Your task to perform on an android device: turn off picture-in-picture Image 0: 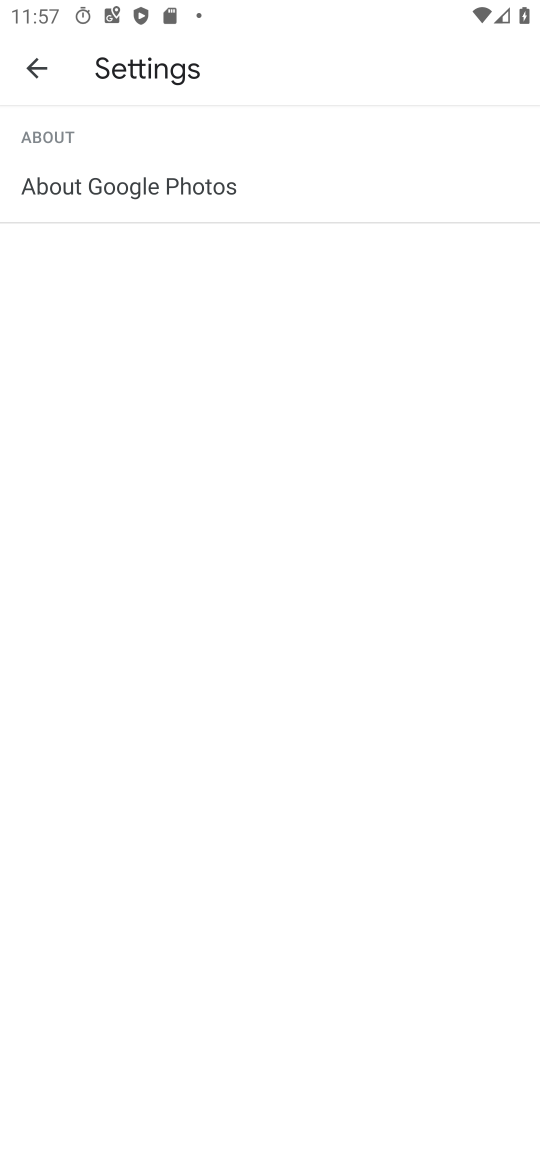
Step 0: click (21, 72)
Your task to perform on an android device: turn off picture-in-picture Image 1: 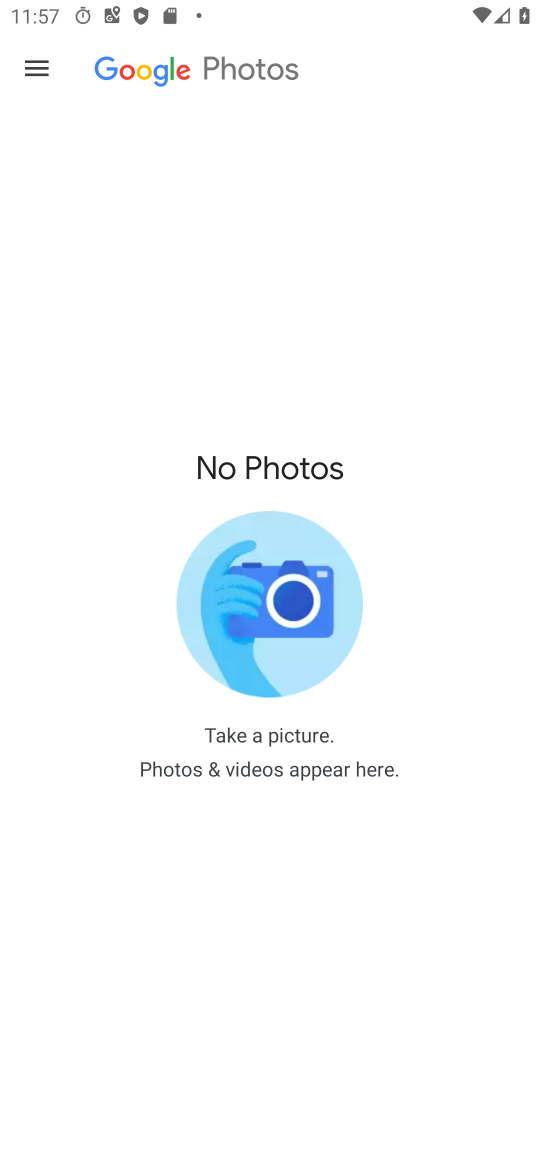
Step 1: press back button
Your task to perform on an android device: turn off picture-in-picture Image 2: 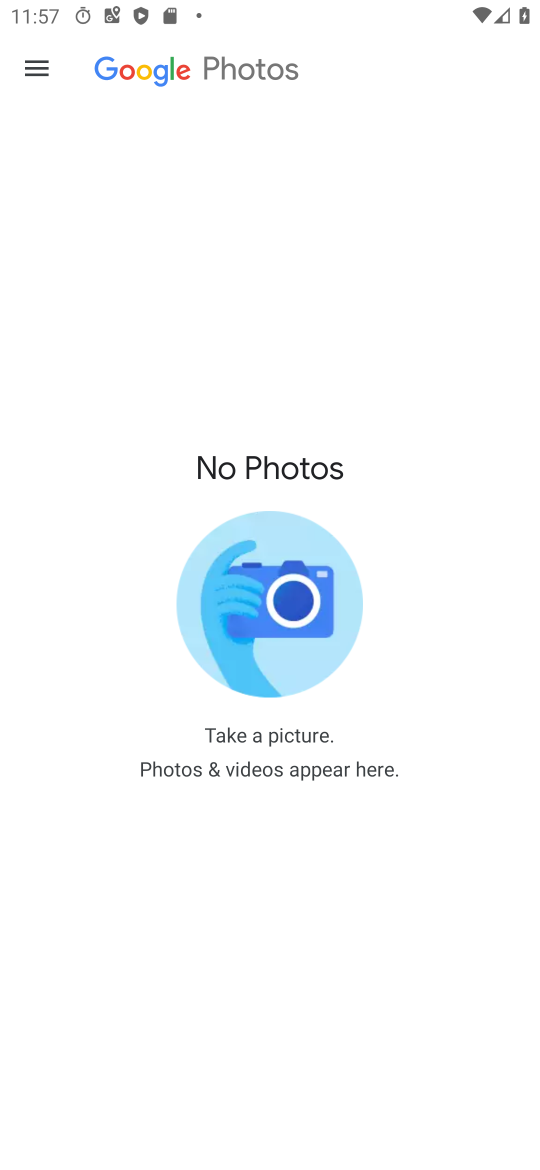
Step 2: press back button
Your task to perform on an android device: turn off picture-in-picture Image 3: 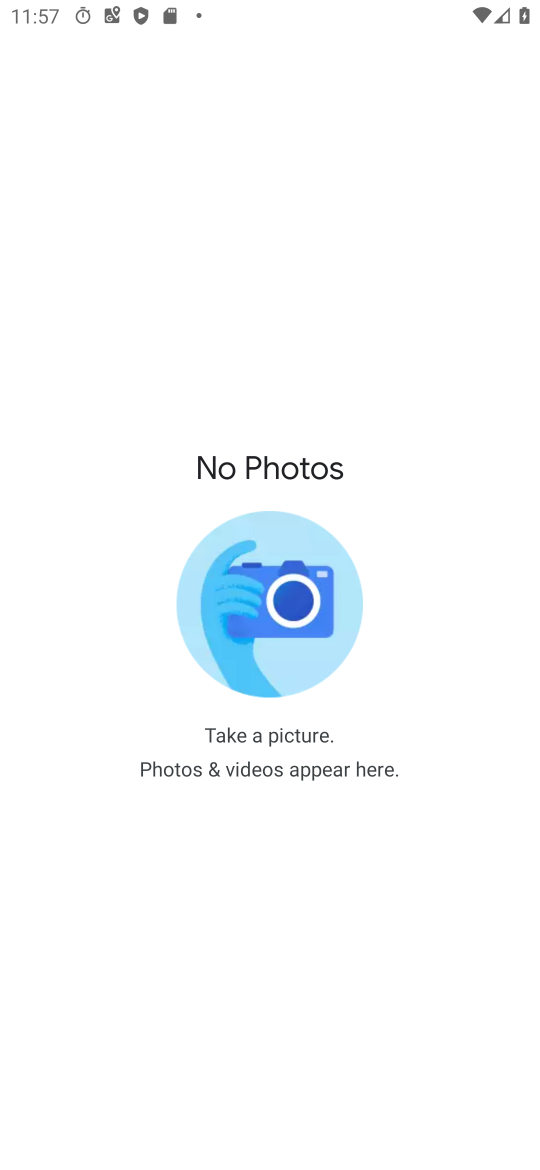
Step 3: click (29, 66)
Your task to perform on an android device: turn off picture-in-picture Image 4: 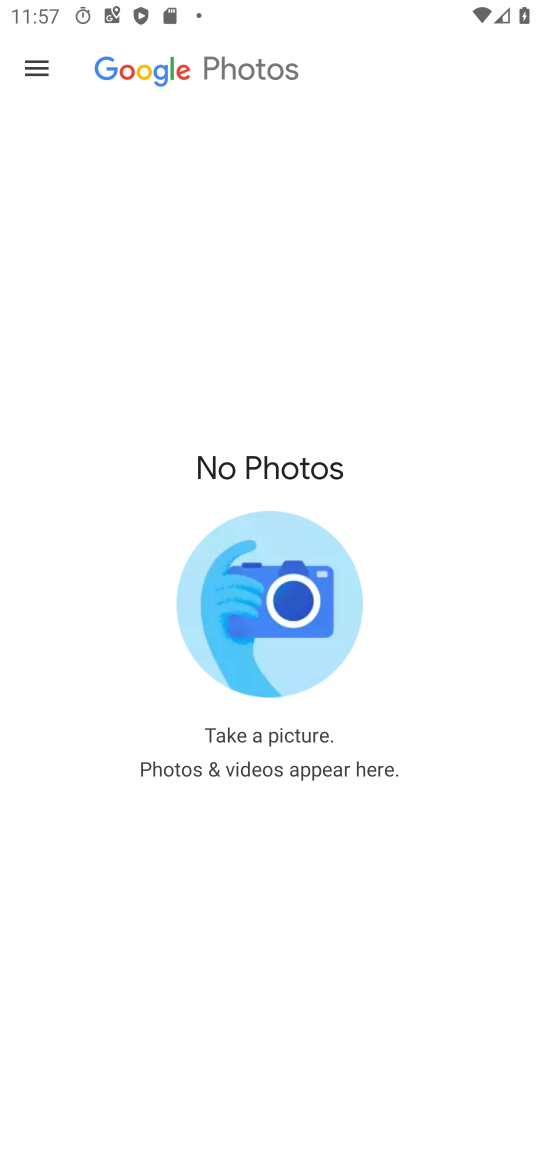
Step 4: click (28, 68)
Your task to perform on an android device: turn off picture-in-picture Image 5: 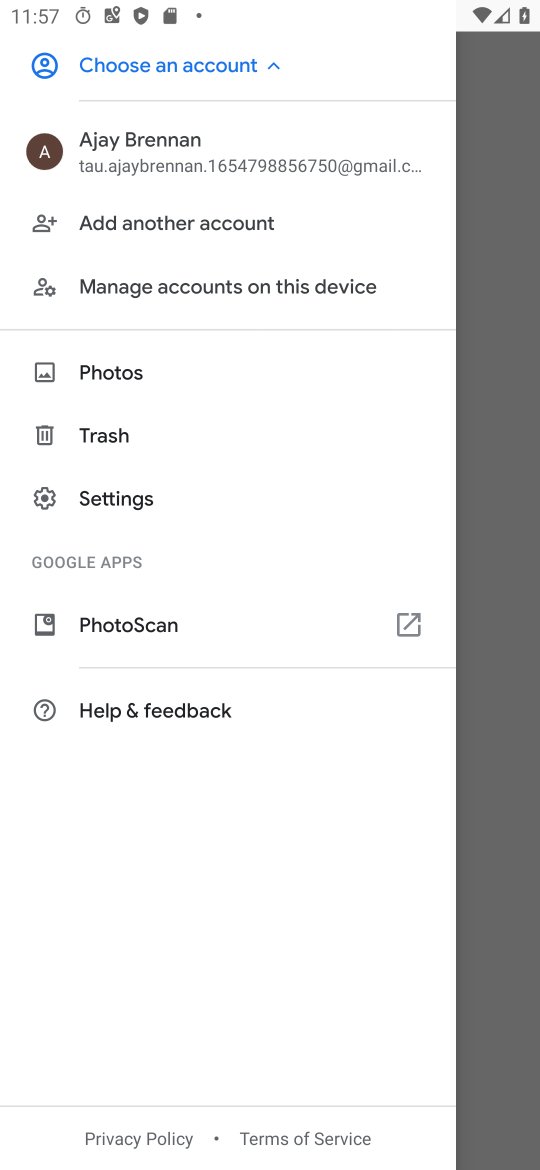
Step 5: press home button
Your task to perform on an android device: turn off picture-in-picture Image 6: 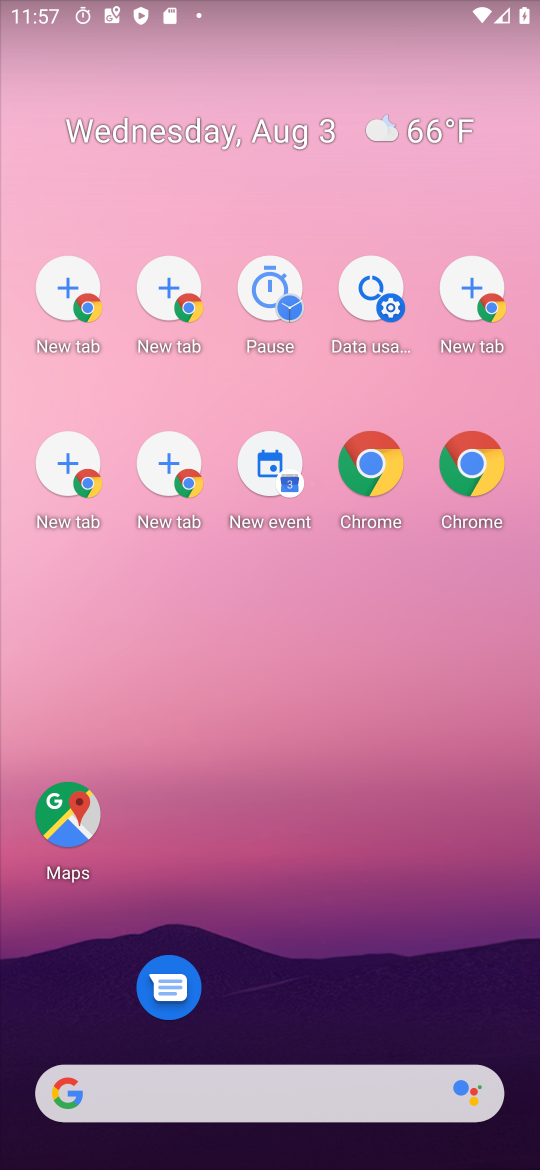
Step 6: drag from (391, 1069) to (133, 277)
Your task to perform on an android device: turn off picture-in-picture Image 7: 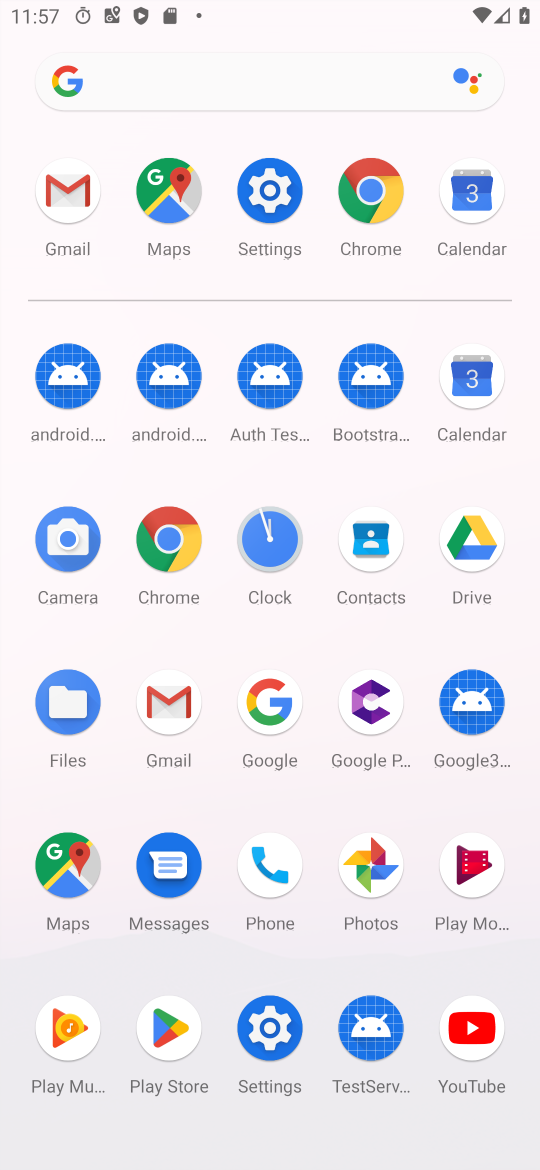
Step 7: click (364, 193)
Your task to perform on an android device: turn off picture-in-picture Image 8: 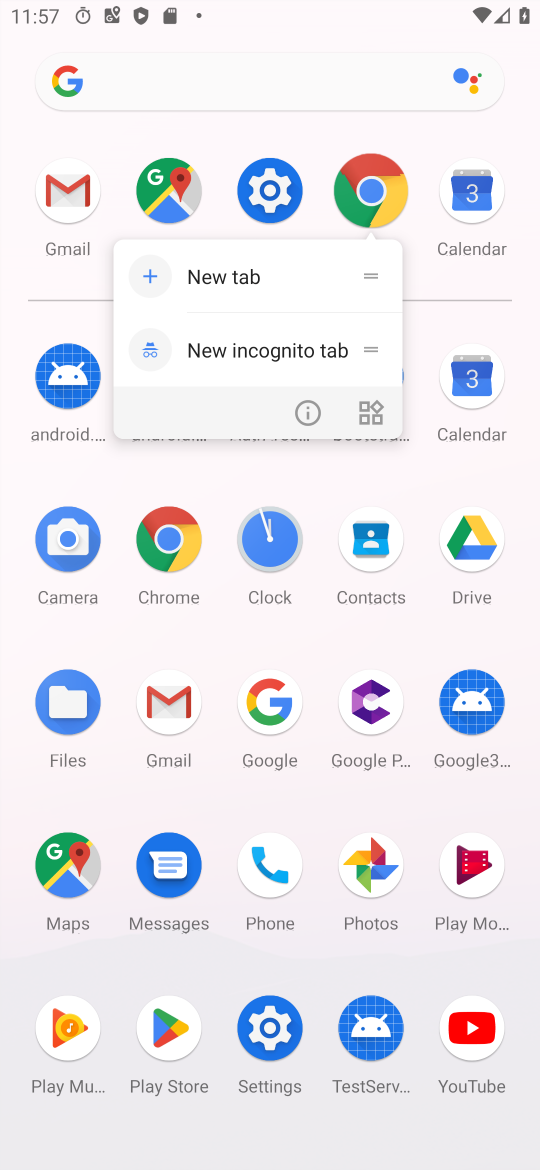
Step 8: click (306, 406)
Your task to perform on an android device: turn off picture-in-picture Image 9: 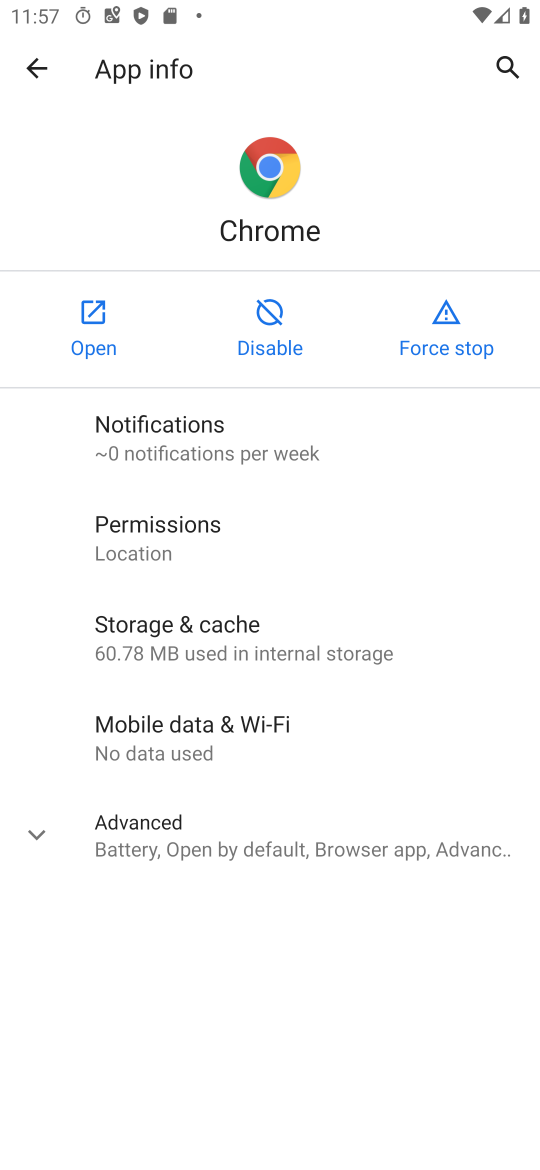
Step 9: click (149, 833)
Your task to perform on an android device: turn off picture-in-picture Image 10: 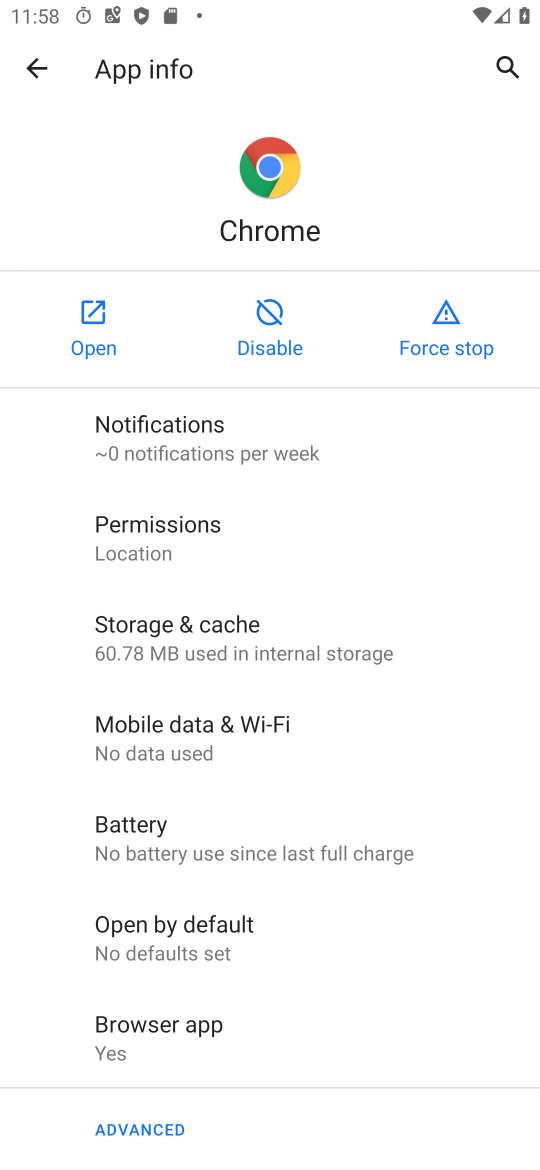
Step 10: drag from (220, 861) to (135, 271)
Your task to perform on an android device: turn off picture-in-picture Image 11: 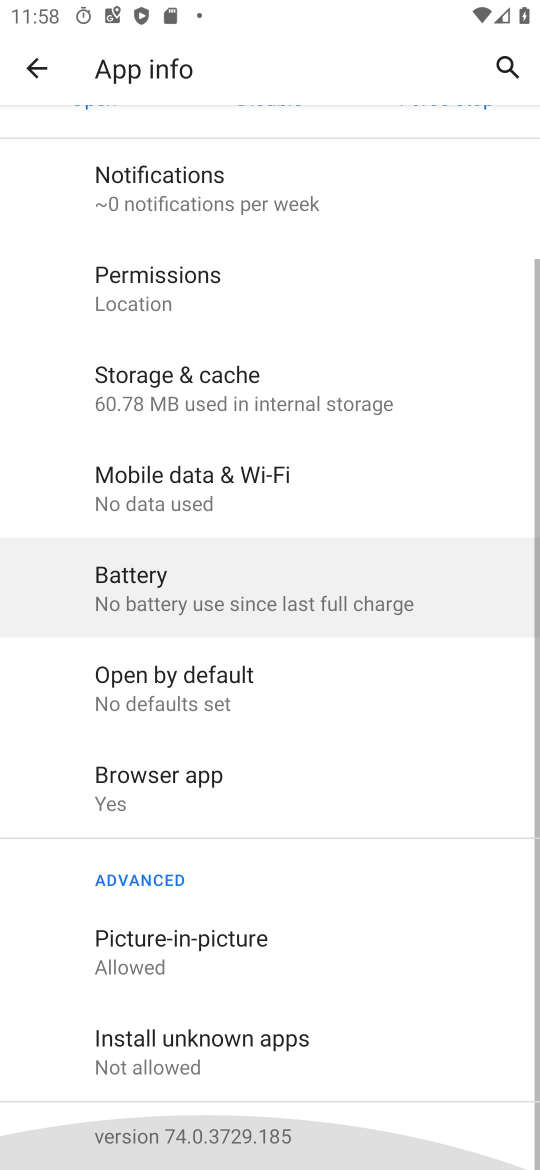
Step 11: drag from (220, 733) to (179, 442)
Your task to perform on an android device: turn off picture-in-picture Image 12: 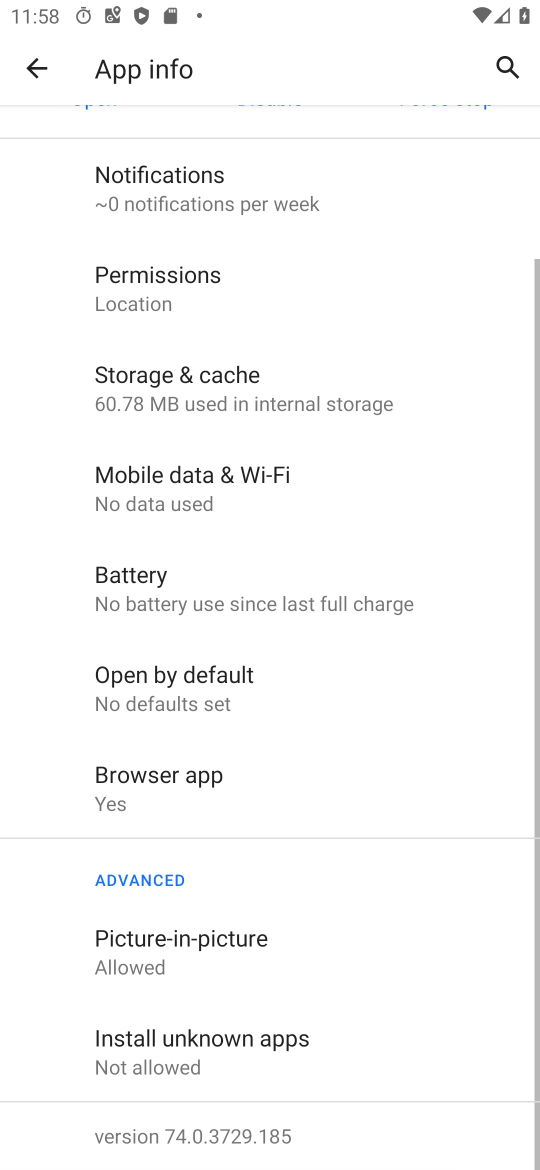
Step 12: drag from (190, 705) to (189, 317)
Your task to perform on an android device: turn off picture-in-picture Image 13: 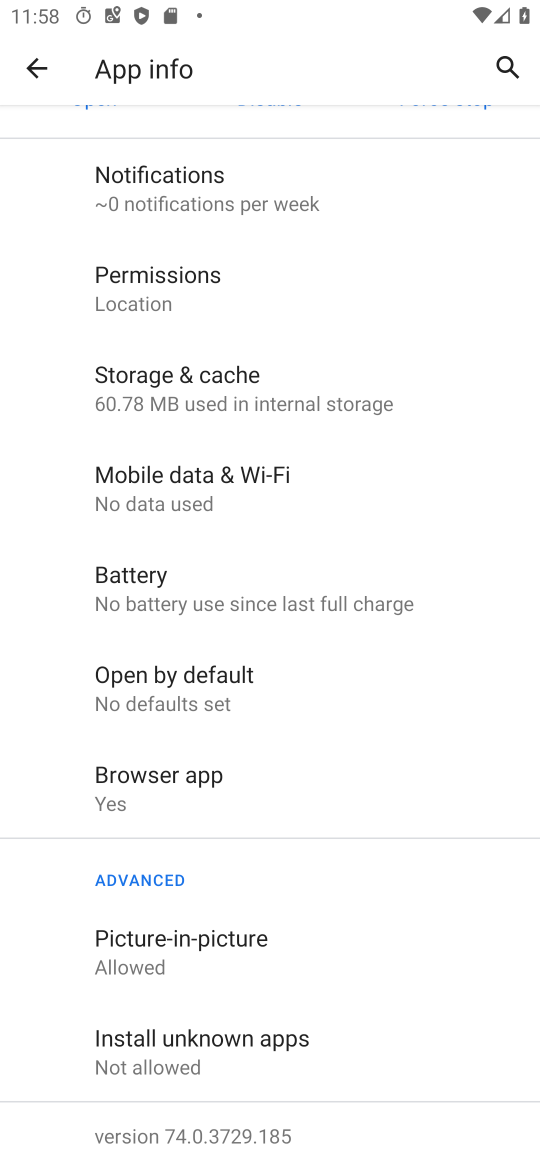
Step 13: click (147, 944)
Your task to perform on an android device: turn off picture-in-picture Image 14: 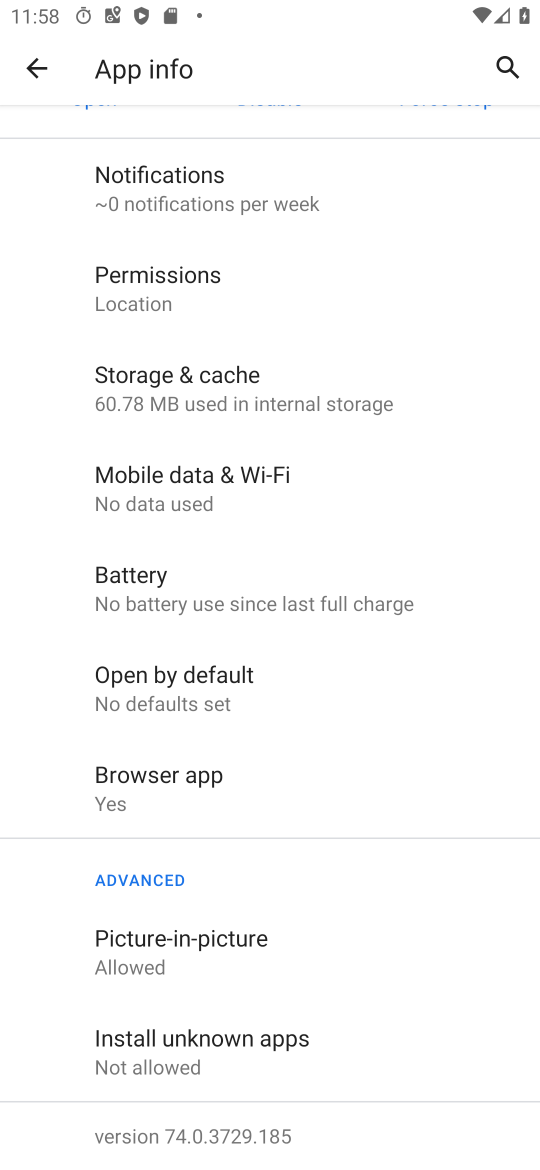
Step 14: click (147, 944)
Your task to perform on an android device: turn off picture-in-picture Image 15: 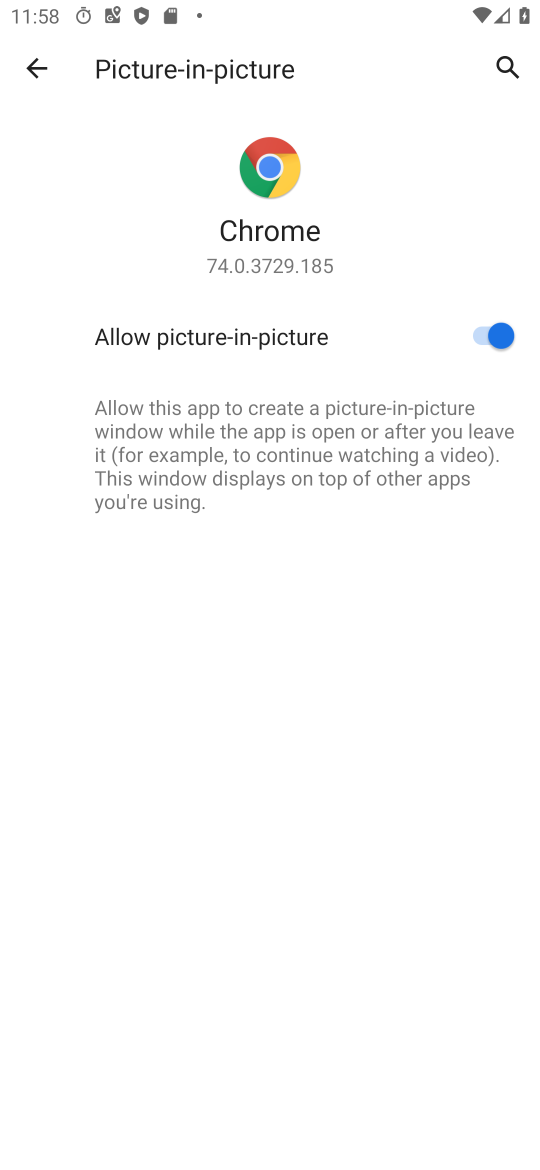
Step 15: click (496, 333)
Your task to perform on an android device: turn off picture-in-picture Image 16: 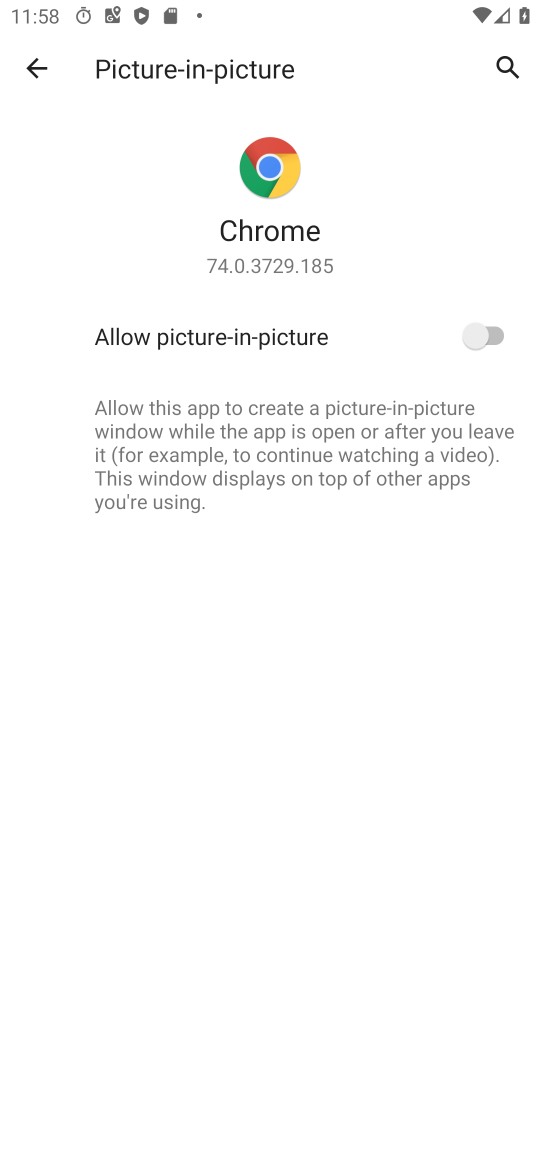
Step 16: task complete